Your task to perform on an android device: Open Google Chrome and click the shortcut for Amazon.com Image 0: 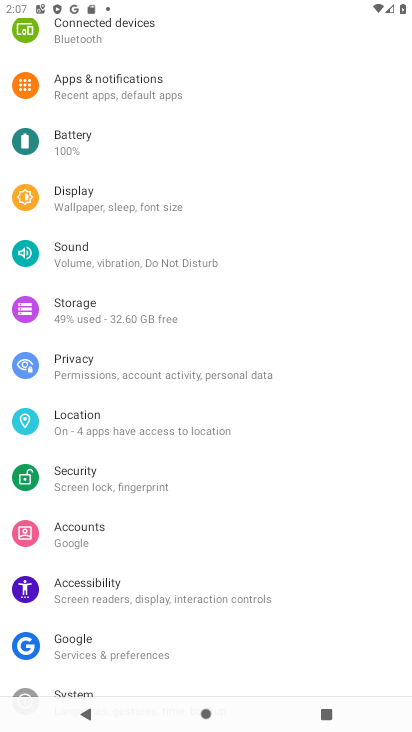
Step 0: press home button
Your task to perform on an android device: Open Google Chrome and click the shortcut for Amazon.com Image 1: 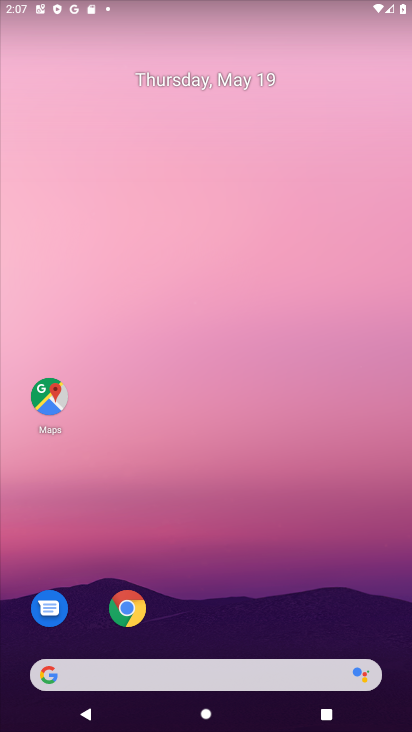
Step 1: click (132, 617)
Your task to perform on an android device: Open Google Chrome and click the shortcut for Amazon.com Image 2: 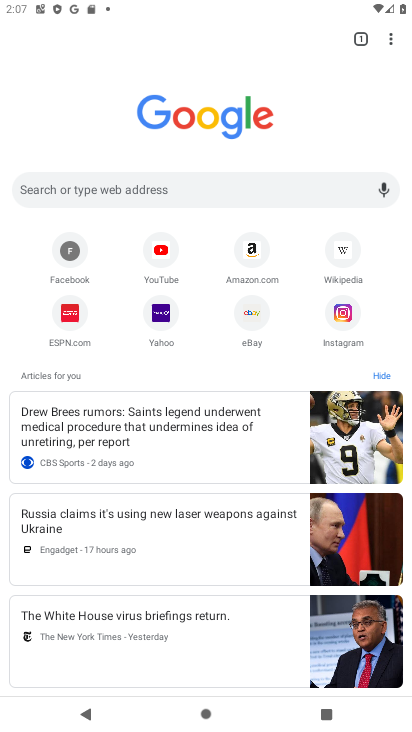
Step 2: click (246, 246)
Your task to perform on an android device: Open Google Chrome and click the shortcut for Amazon.com Image 3: 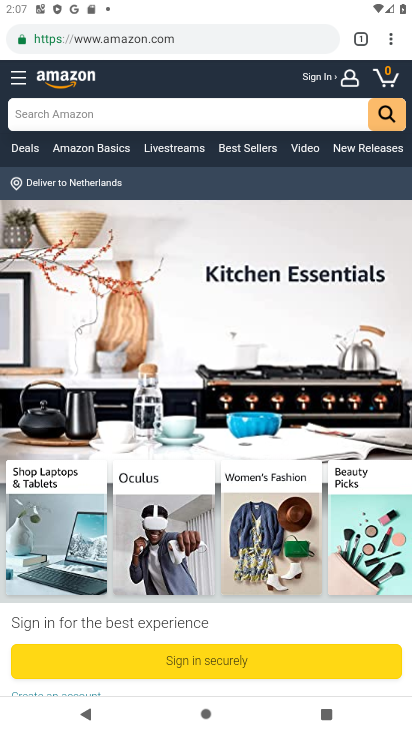
Step 3: task complete